Your task to perform on an android device: When is my next meeting? Image 0: 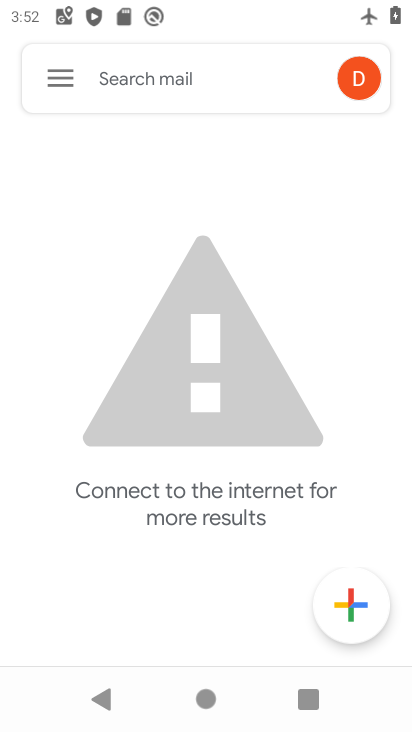
Step 0: press home button
Your task to perform on an android device: When is my next meeting? Image 1: 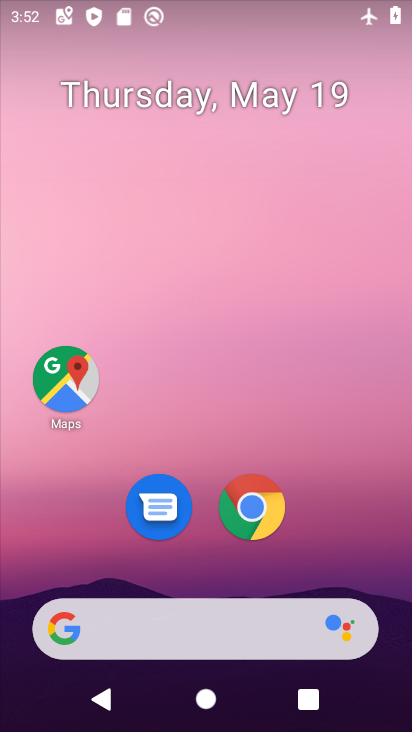
Step 1: drag from (386, 644) to (367, 255)
Your task to perform on an android device: When is my next meeting? Image 2: 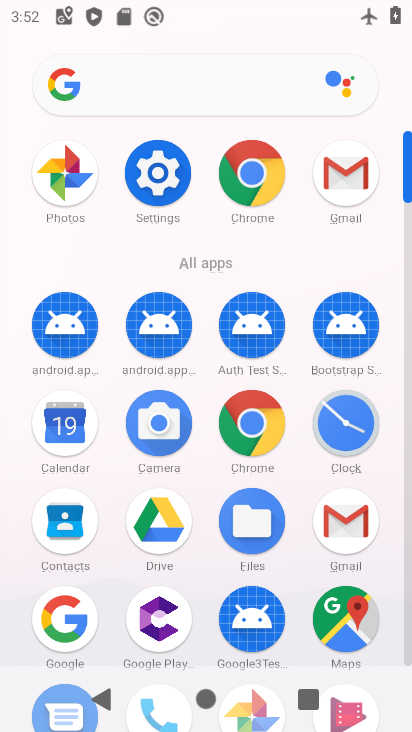
Step 2: click (59, 433)
Your task to perform on an android device: When is my next meeting? Image 3: 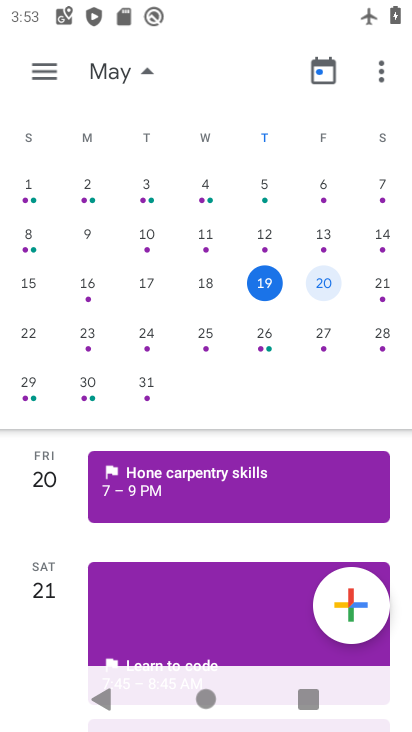
Step 3: click (45, 67)
Your task to perform on an android device: When is my next meeting? Image 4: 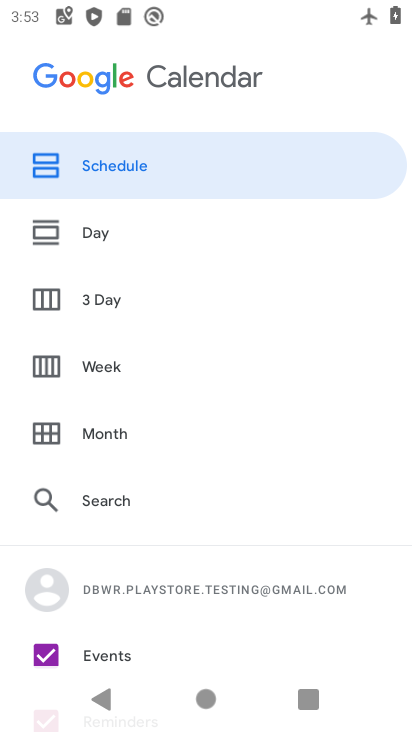
Step 4: click (143, 161)
Your task to perform on an android device: When is my next meeting? Image 5: 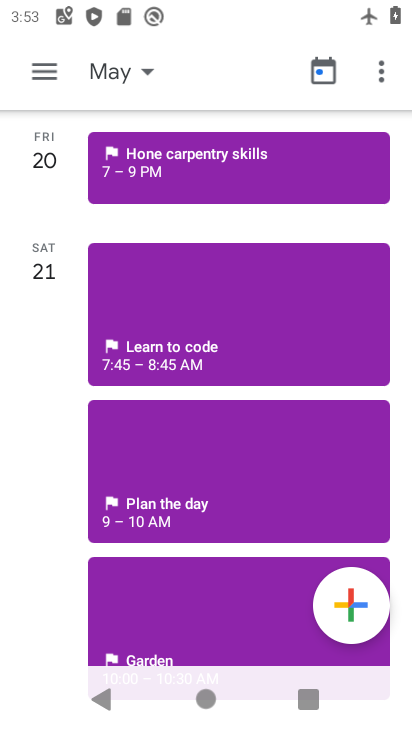
Step 5: click (32, 79)
Your task to perform on an android device: When is my next meeting? Image 6: 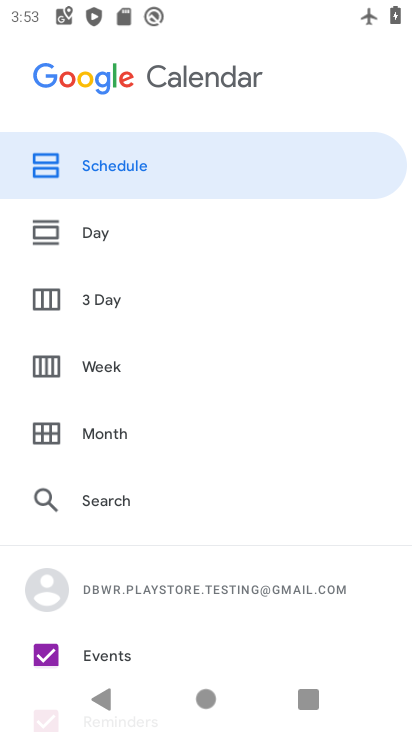
Step 6: drag from (229, 537) to (247, 251)
Your task to perform on an android device: When is my next meeting? Image 7: 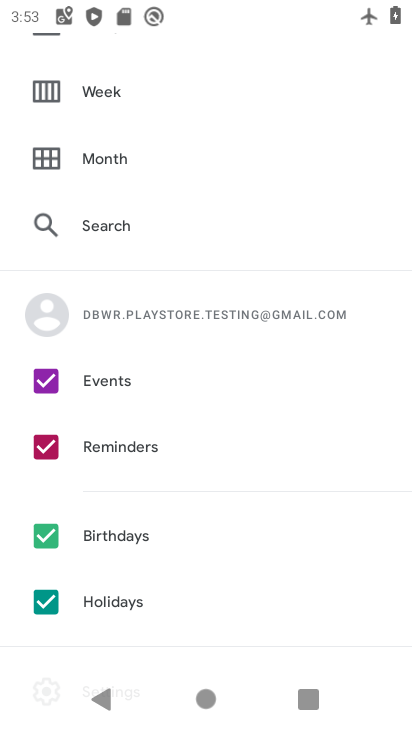
Step 7: drag from (232, 593) to (222, 453)
Your task to perform on an android device: When is my next meeting? Image 8: 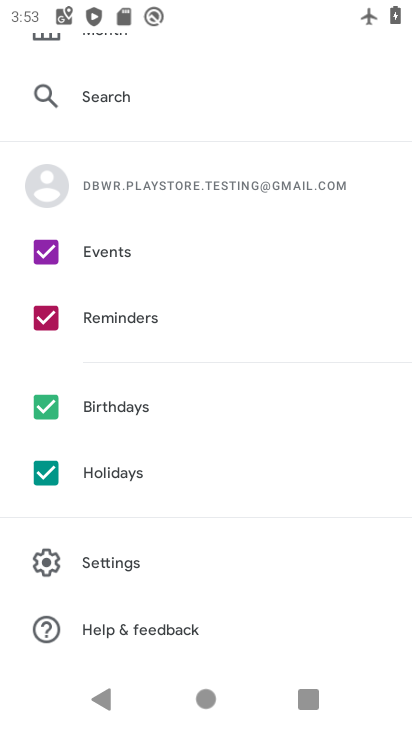
Step 8: click (52, 460)
Your task to perform on an android device: When is my next meeting? Image 9: 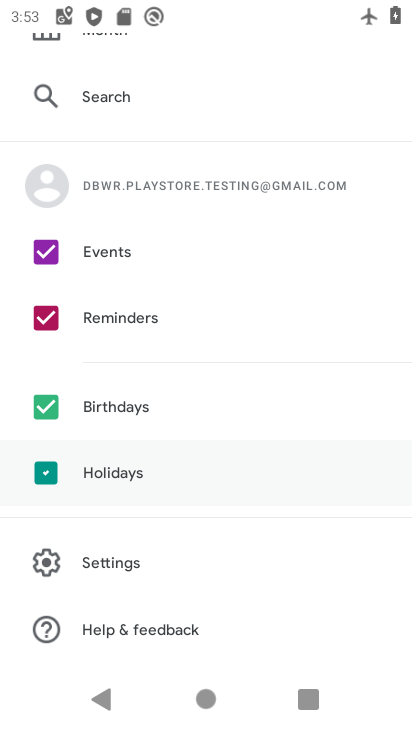
Step 9: click (55, 398)
Your task to perform on an android device: When is my next meeting? Image 10: 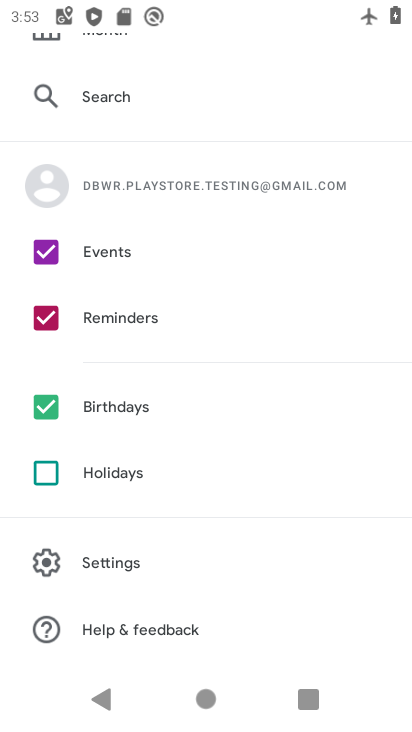
Step 10: click (55, 311)
Your task to perform on an android device: When is my next meeting? Image 11: 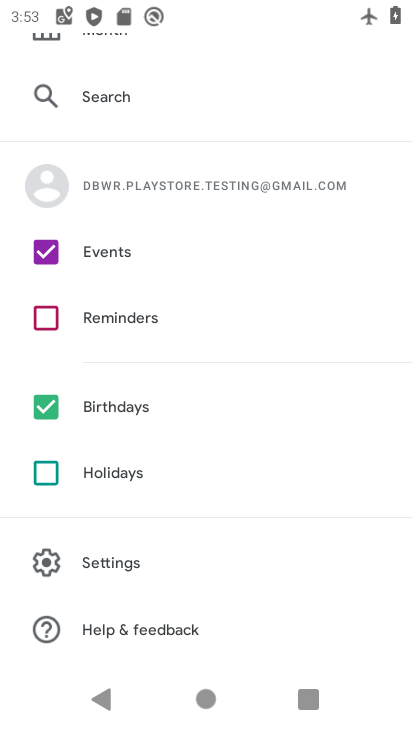
Step 11: click (49, 411)
Your task to perform on an android device: When is my next meeting? Image 12: 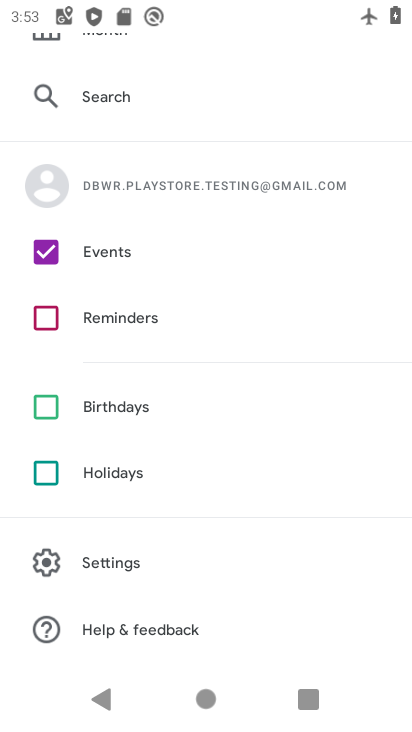
Step 12: drag from (339, 126) to (324, 561)
Your task to perform on an android device: When is my next meeting? Image 13: 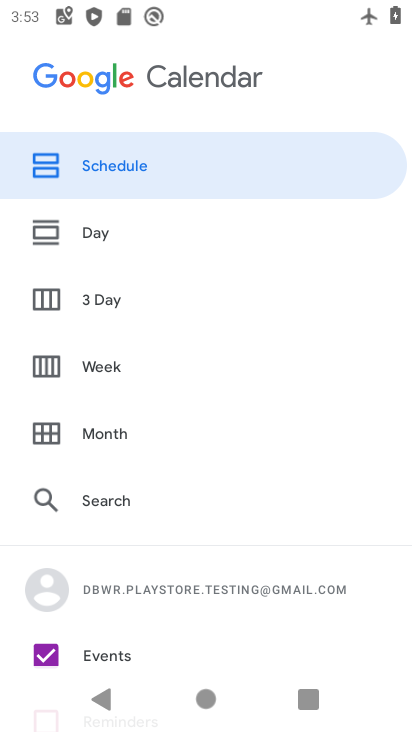
Step 13: click (170, 161)
Your task to perform on an android device: When is my next meeting? Image 14: 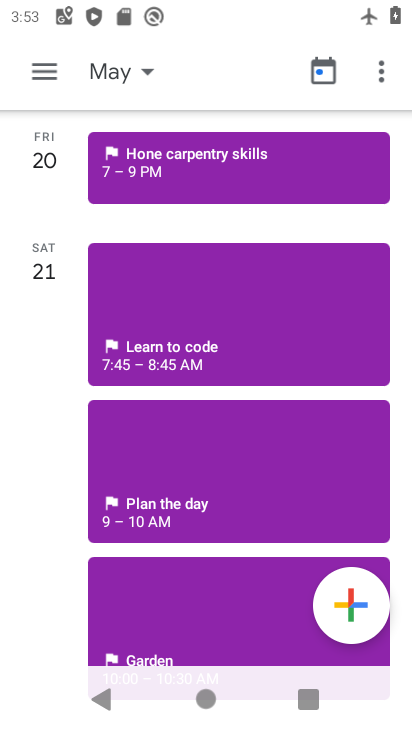
Step 14: task complete